Your task to perform on an android device: See recent photos Image 0: 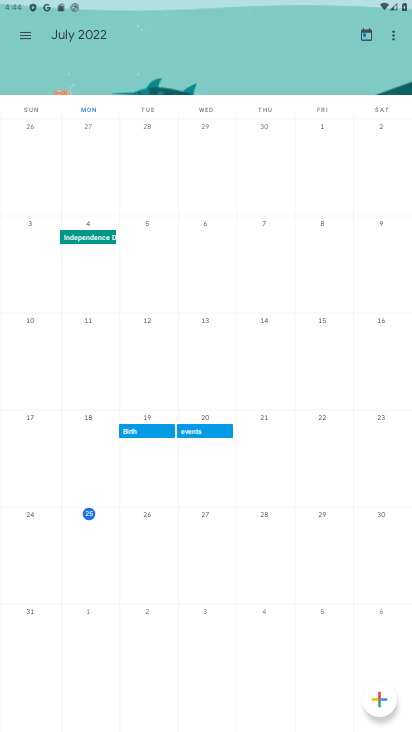
Step 0: press home button
Your task to perform on an android device: See recent photos Image 1: 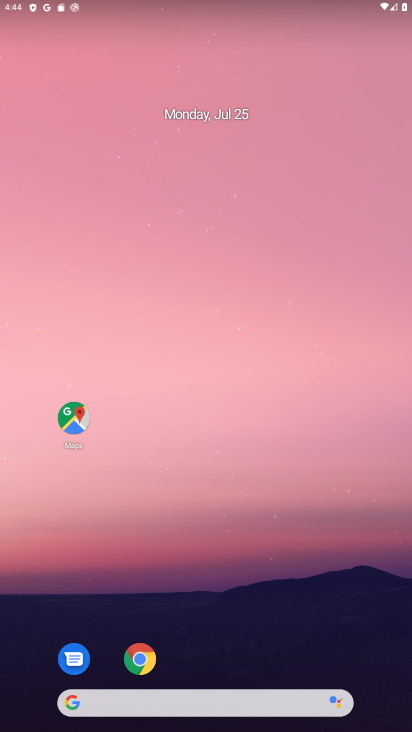
Step 1: drag from (189, 601) to (161, 325)
Your task to perform on an android device: See recent photos Image 2: 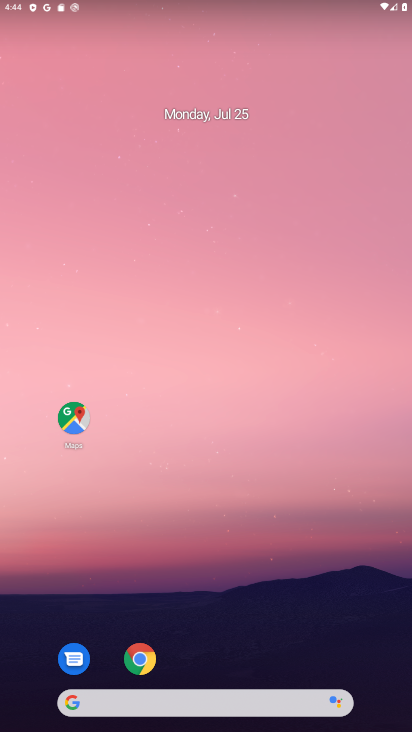
Step 2: drag from (207, 590) to (186, 22)
Your task to perform on an android device: See recent photos Image 3: 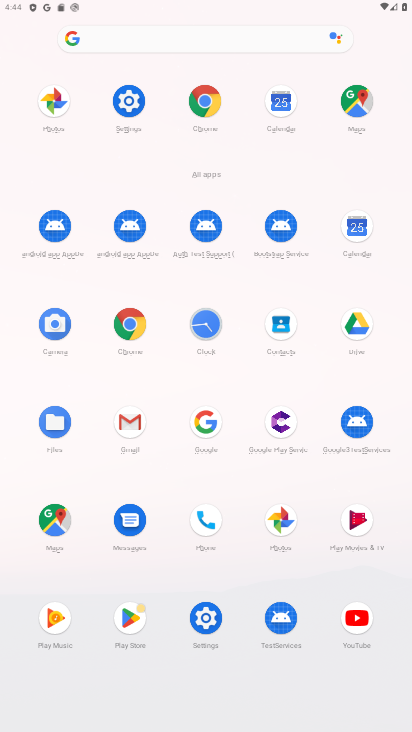
Step 3: click (270, 528)
Your task to perform on an android device: See recent photos Image 4: 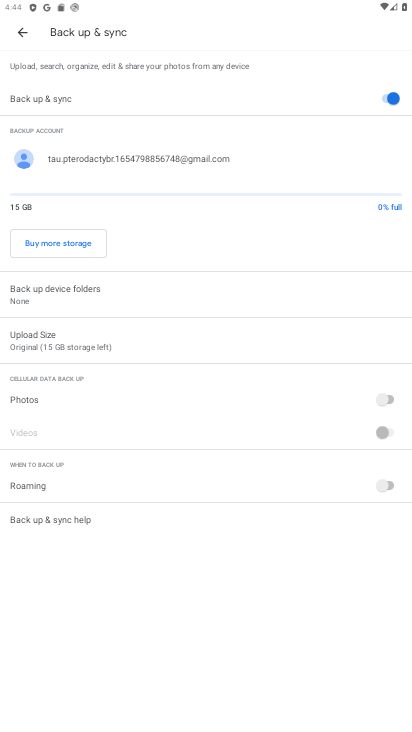
Step 4: click (22, 32)
Your task to perform on an android device: See recent photos Image 5: 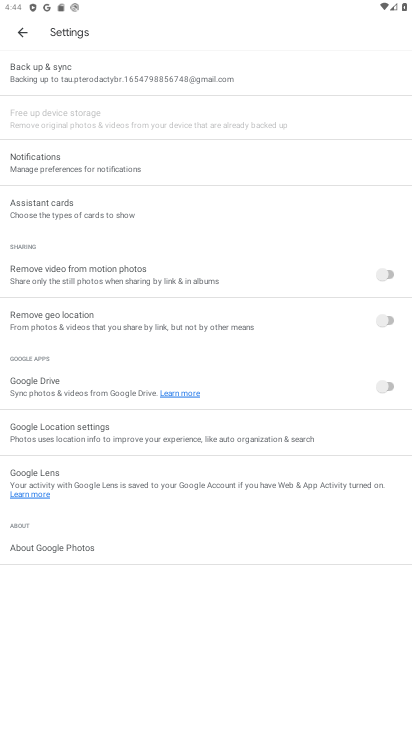
Step 5: click (22, 32)
Your task to perform on an android device: See recent photos Image 6: 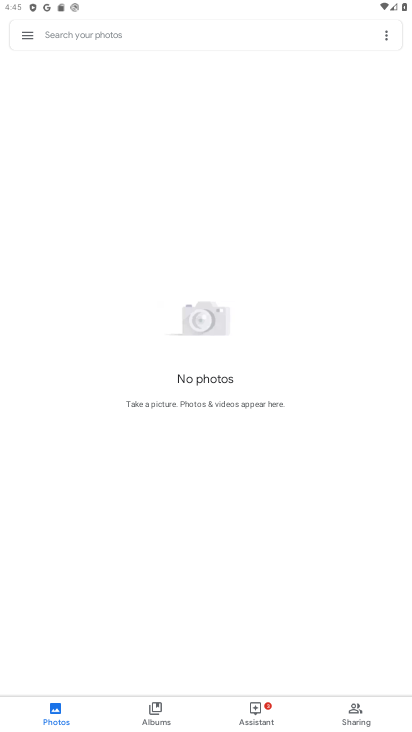
Step 6: task complete